Your task to perform on an android device: Open calendar and show me the first week of next month Image 0: 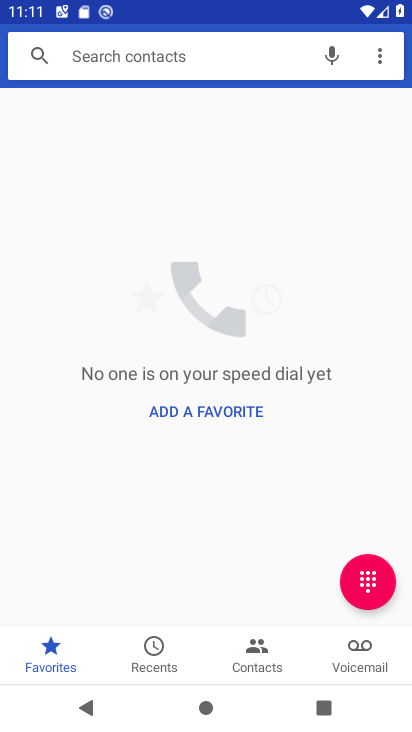
Step 0: press home button
Your task to perform on an android device: Open calendar and show me the first week of next month Image 1: 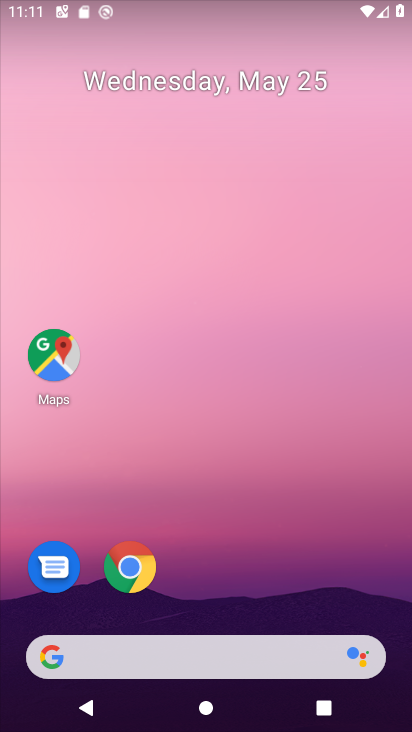
Step 1: click (255, 79)
Your task to perform on an android device: Open calendar and show me the first week of next month Image 2: 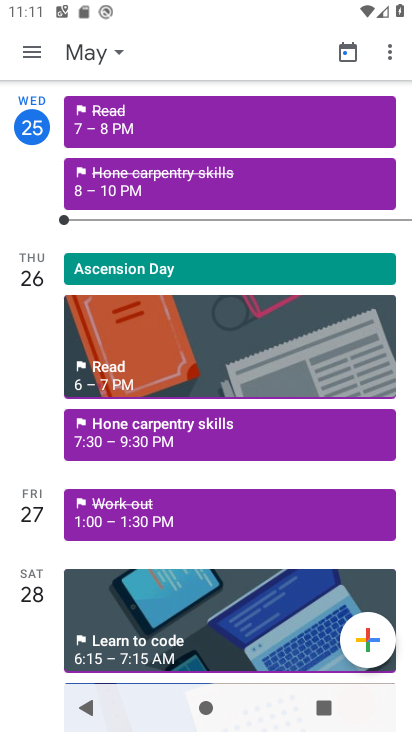
Step 2: click (29, 44)
Your task to perform on an android device: Open calendar and show me the first week of next month Image 3: 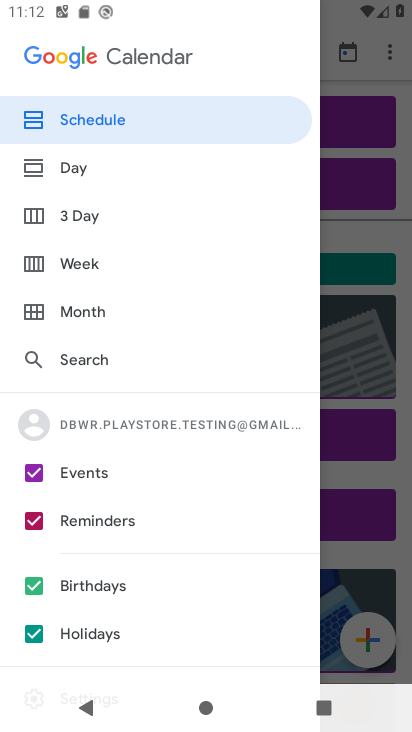
Step 3: click (70, 259)
Your task to perform on an android device: Open calendar and show me the first week of next month Image 4: 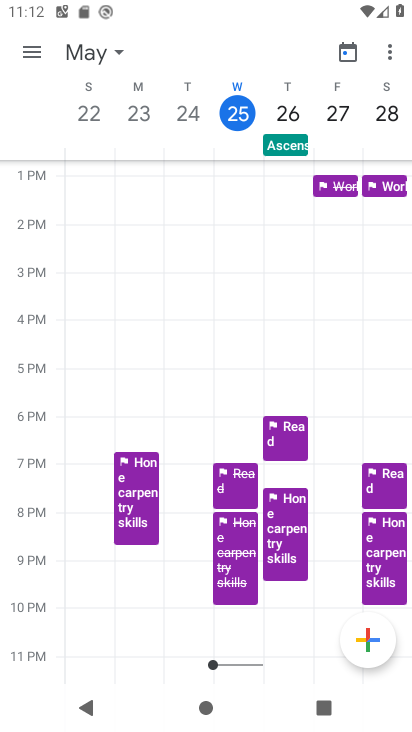
Step 4: click (112, 52)
Your task to perform on an android device: Open calendar and show me the first week of next month Image 5: 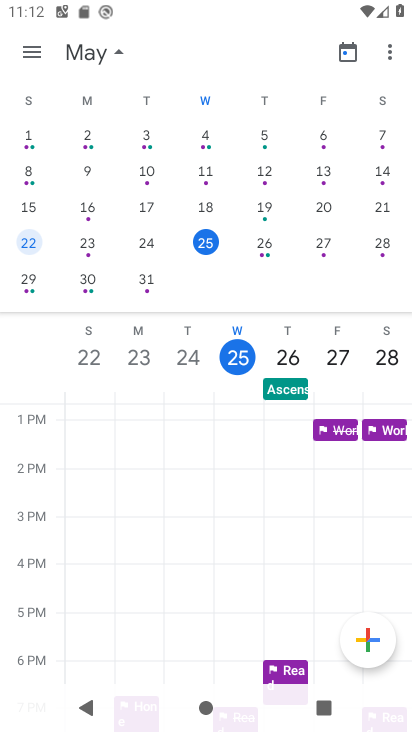
Step 5: drag from (377, 287) to (42, 270)
Your task to perform on an android device: Open calendar and show me the first week of next month Image 6: 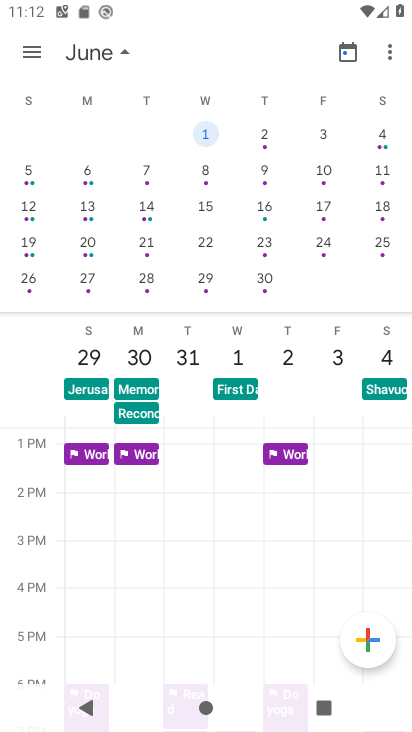
Step 6: click (264, 133)
Your task to perform on an android device: Open calendar and show me the first week of next month Image 7: 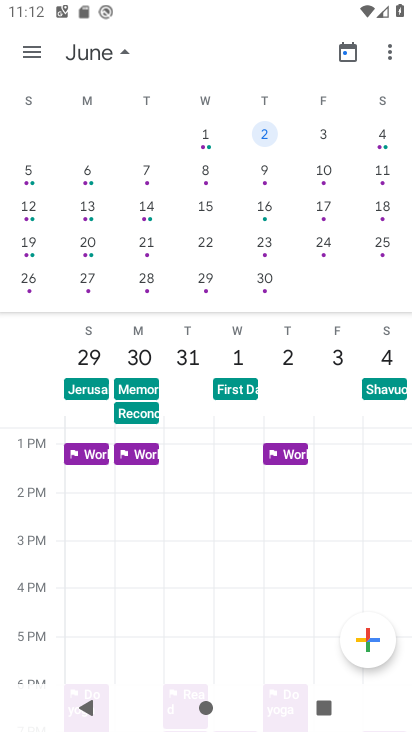
Step 7: task complete